Your task to perform on an android device: Open settings Image 0: 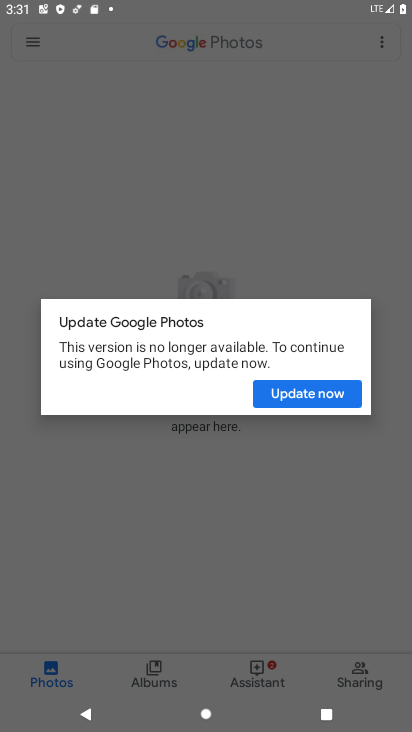
Step 0: drag from (206, 9) to (2, 395)
Your task to perform on an android device: Open settings Image 1: 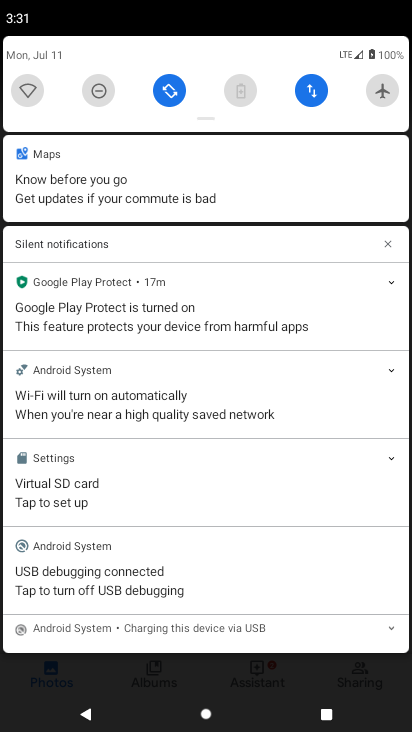
Step 1: drag from (193, 45) to (161, 439)
Your task to perform on an android device: Open settings Image 2: 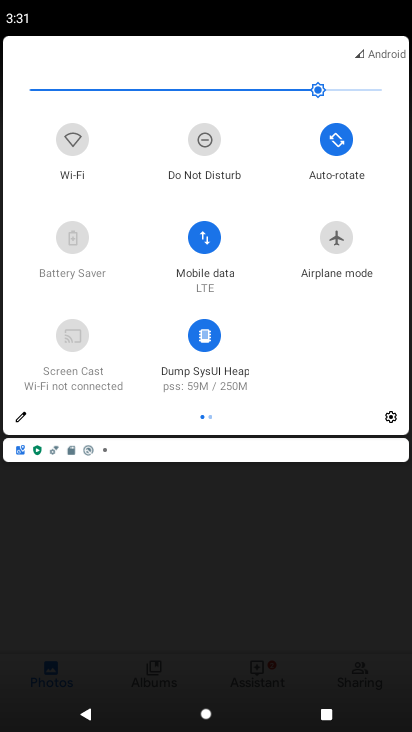
Step 2: click (390, 420)
Your task to perform on an android device: Open settings Image 3: 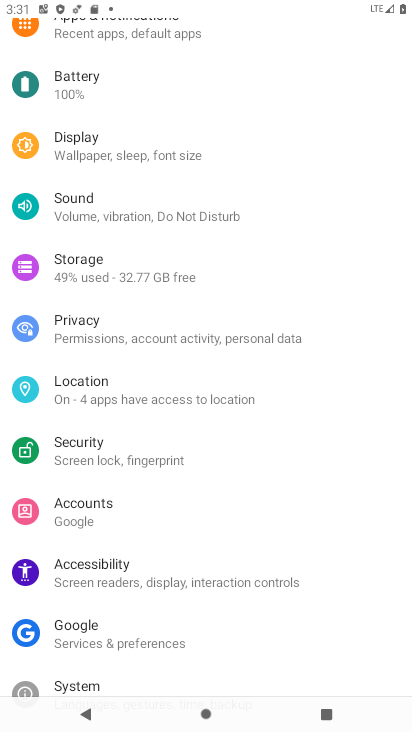
Step 3: task complete